Your task to perform on an android device: check android version Image 0: 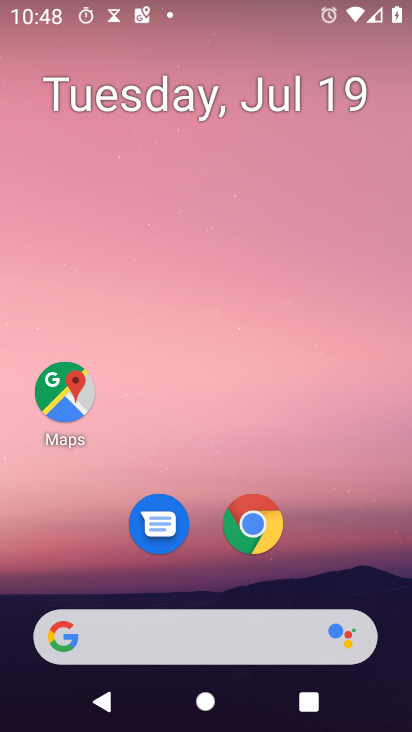
Step 0: drag from (214, 570) to (317, 91)
Your task to perform on an android device: check android version Image 1: 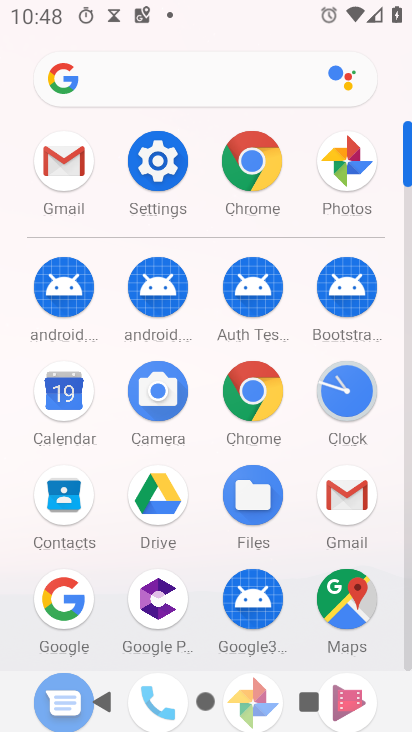
Step 1: click (155, 145)
Your task to perform on an android device: check android version Image 2: 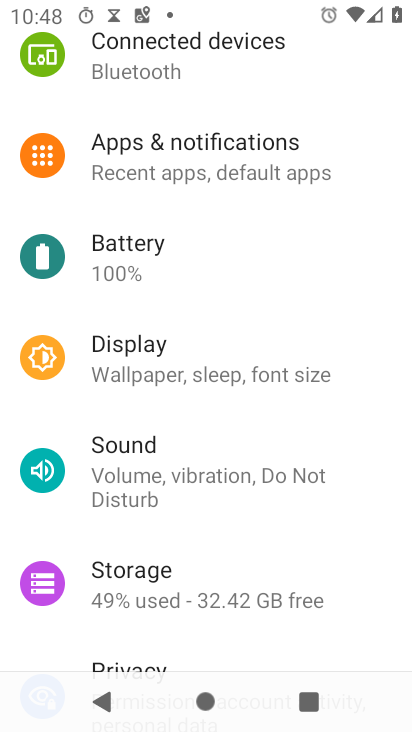
Step 2: drag from (243, 623) to (303, 68)
Your task to perform on an android device: check android version Image 3: 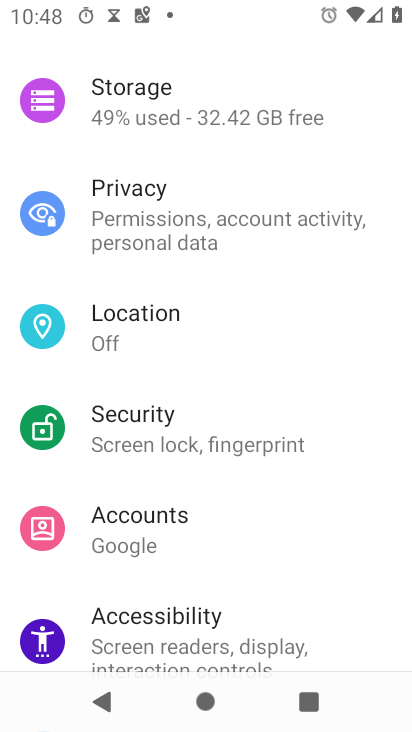
Step 3: drag from (224, 554) to (328, 4)
Your task to perform on an android device: check android version Image 4: 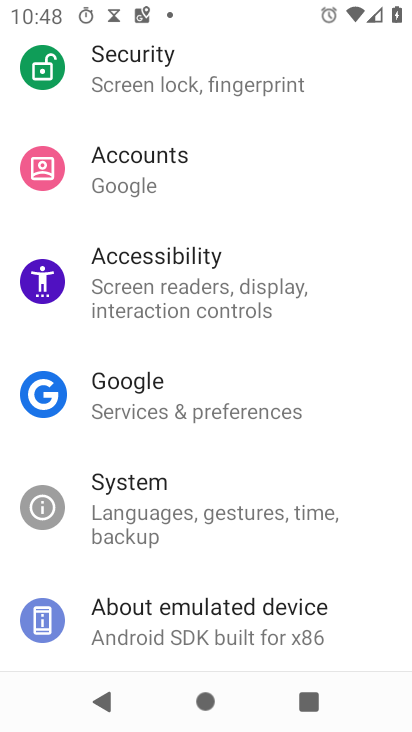
Step 4: click (191, 619)
Your task to perform on an android device: check android version Image 5: 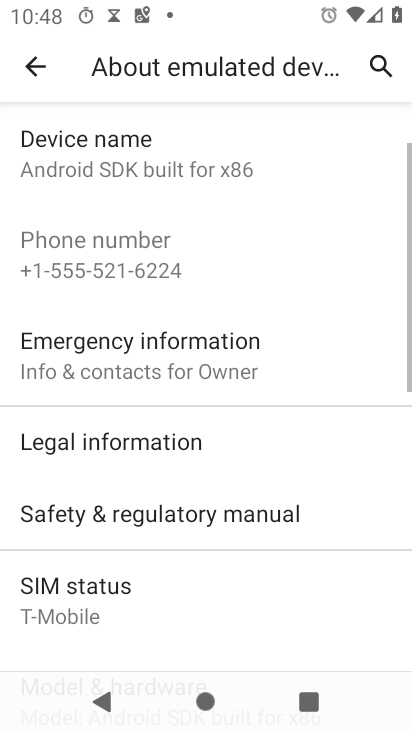
Step 5: drag from (208, 570) to (284, 118)
Your task to perform on an android device: check android version Image 6: 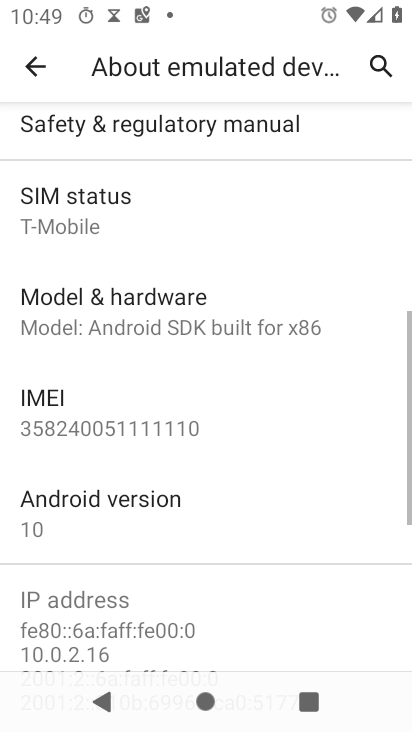
Step 6: click (112, 503)
Your task to perform on an android device: check android version Image 7: 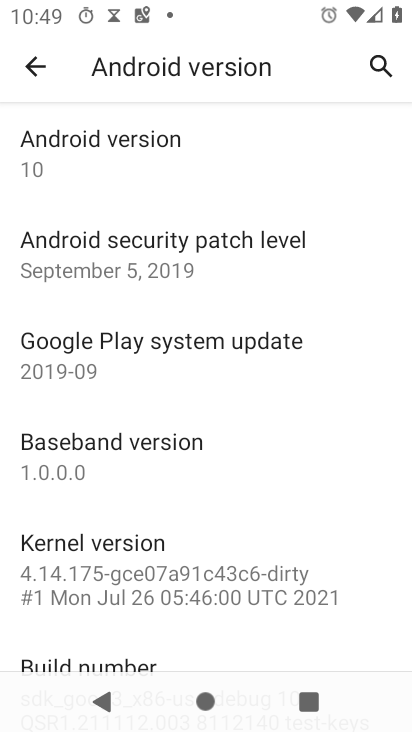
Step 7: task complete